Your task to perform on an android device: all mails in gmail Image 0: 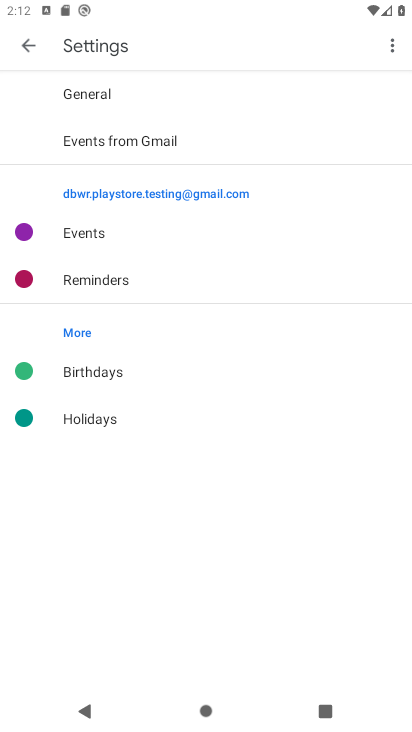
Step 0: drag from (201, 555) to (282, 125)
Your task to perform on an android device: all mails in gmail Image 1: 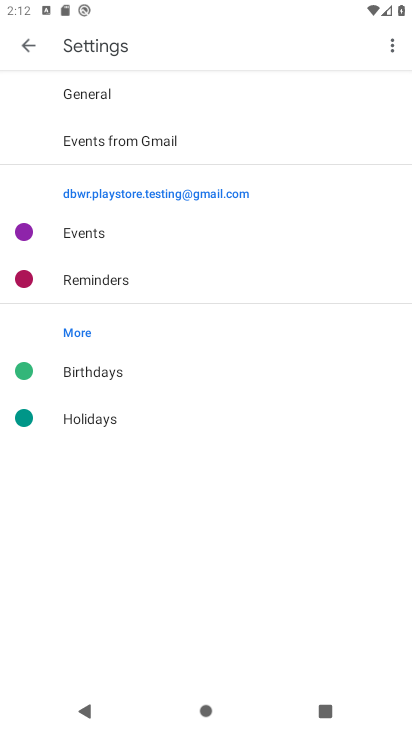
Step 1: press home button
Your task to perform on an android device: all mails in gmail Image 2: 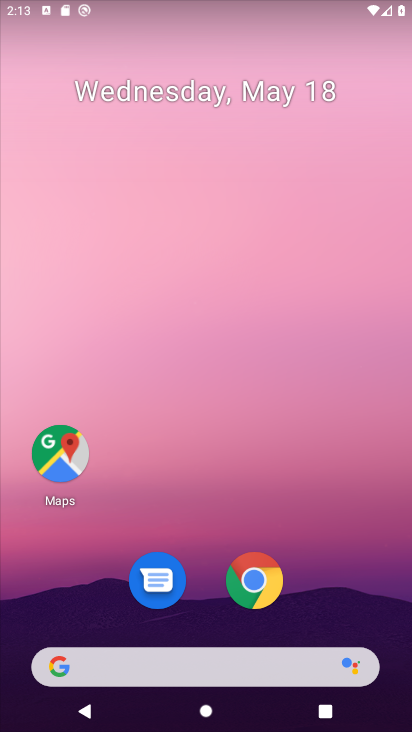
Step 2: drag from (208, 594) to (232, 107)
Your task to perform on an android device: all mails in gmail Image 3: 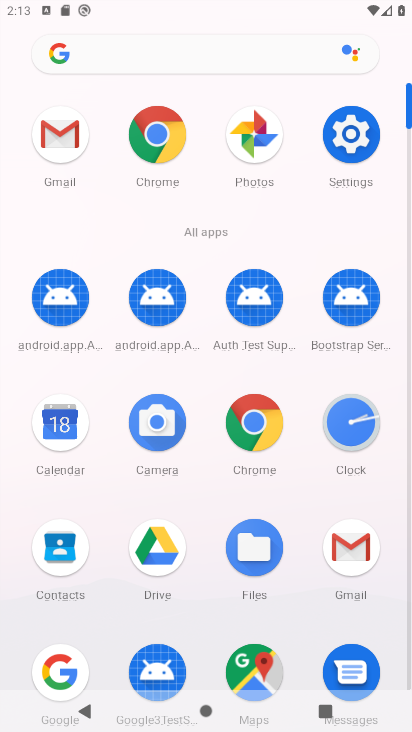
Step 3: click (349, 528)
Your task to perform on an android device: all mails in gmail Image 4: 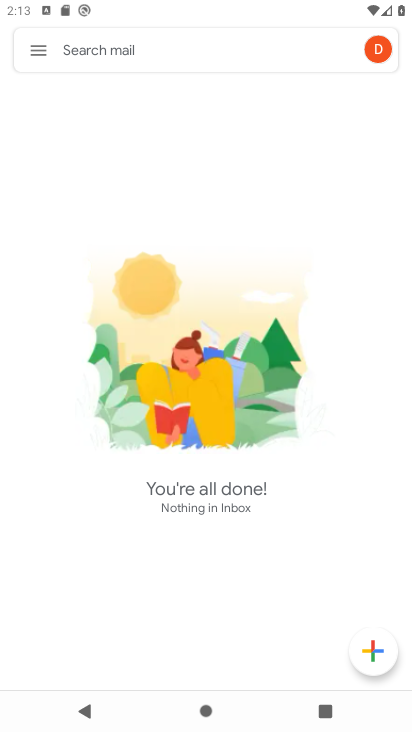
Step 4: click (36, 54)
Your task to perform on an android device: all mails in gmail Image 5: 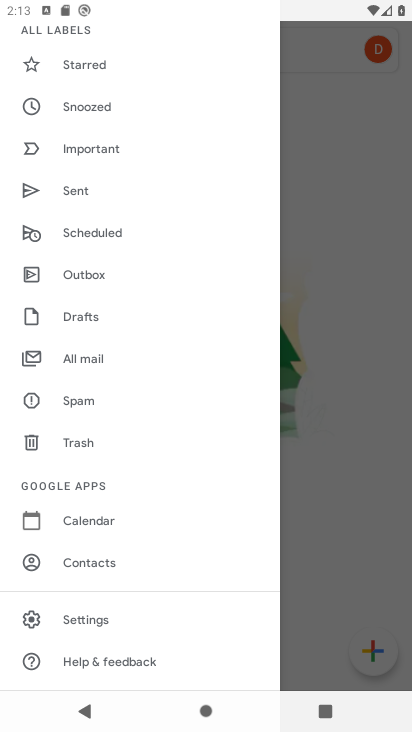
Step 5: click (79, 360)
Your task to perform on an android device: all mails in gmail Image 6: 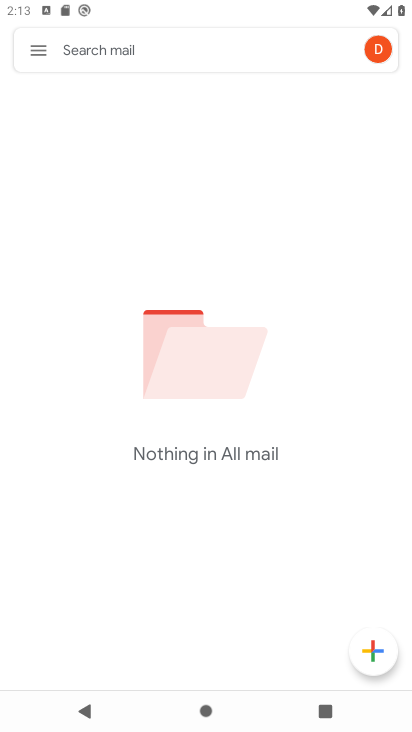
Step 6: task complete